Your task to perform on an android device: open app "Firefox Browser" (install if not already installed) and go to login screen Image 0: 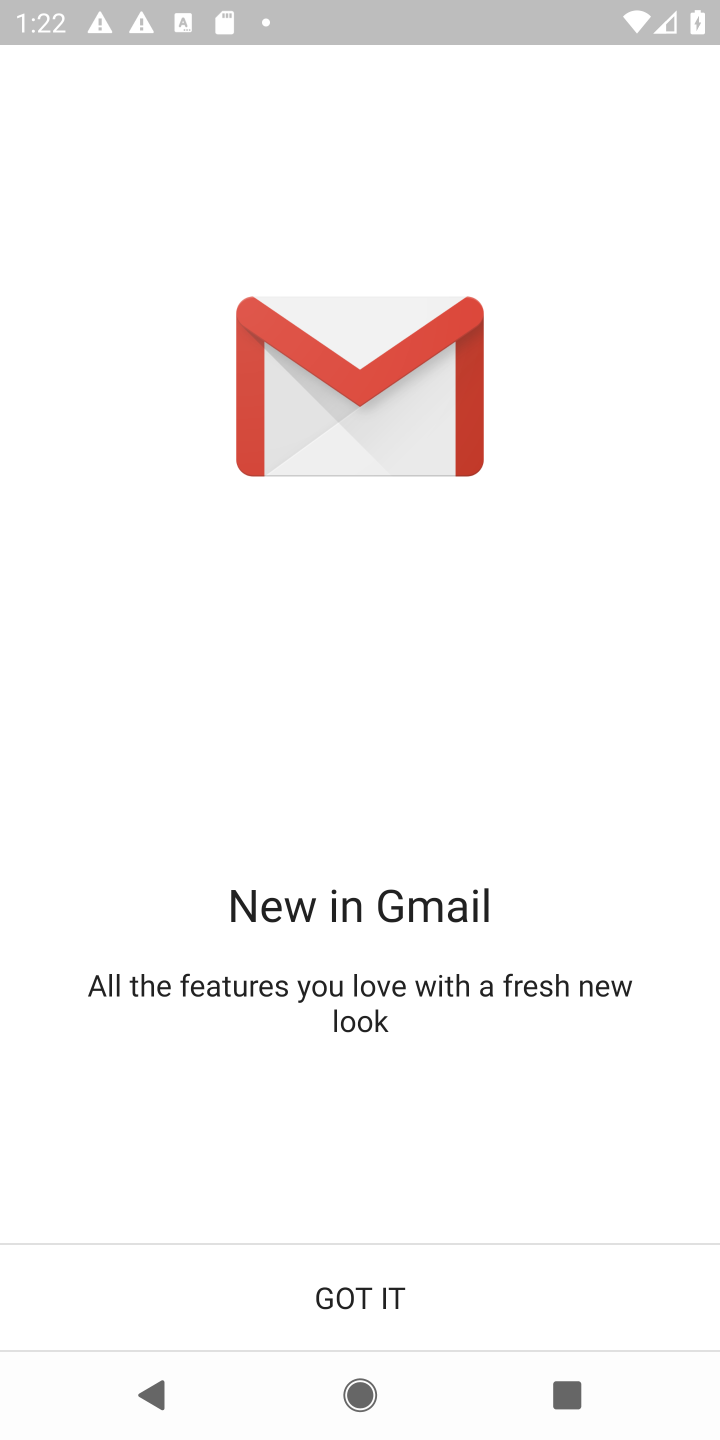
Step 0: press home button
Your task to perform on an android device: open app "Firefox Browser" (install if not already installed) and go to login screen Image 1: 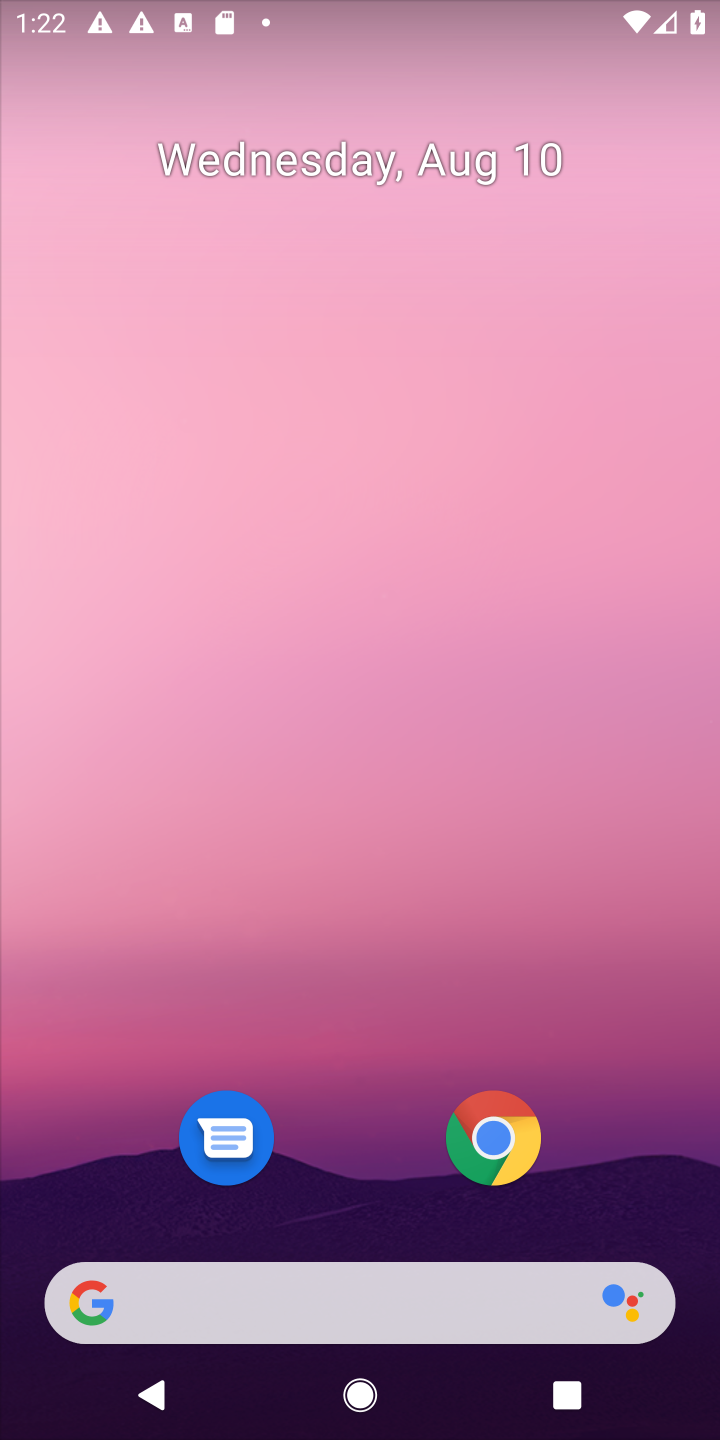
Step 1: drag from (610, 1194) to (680, 40)
Your task to perform on an android device: open app "Firefox Browser" (install if not already installed) and go to login screen Image 2: 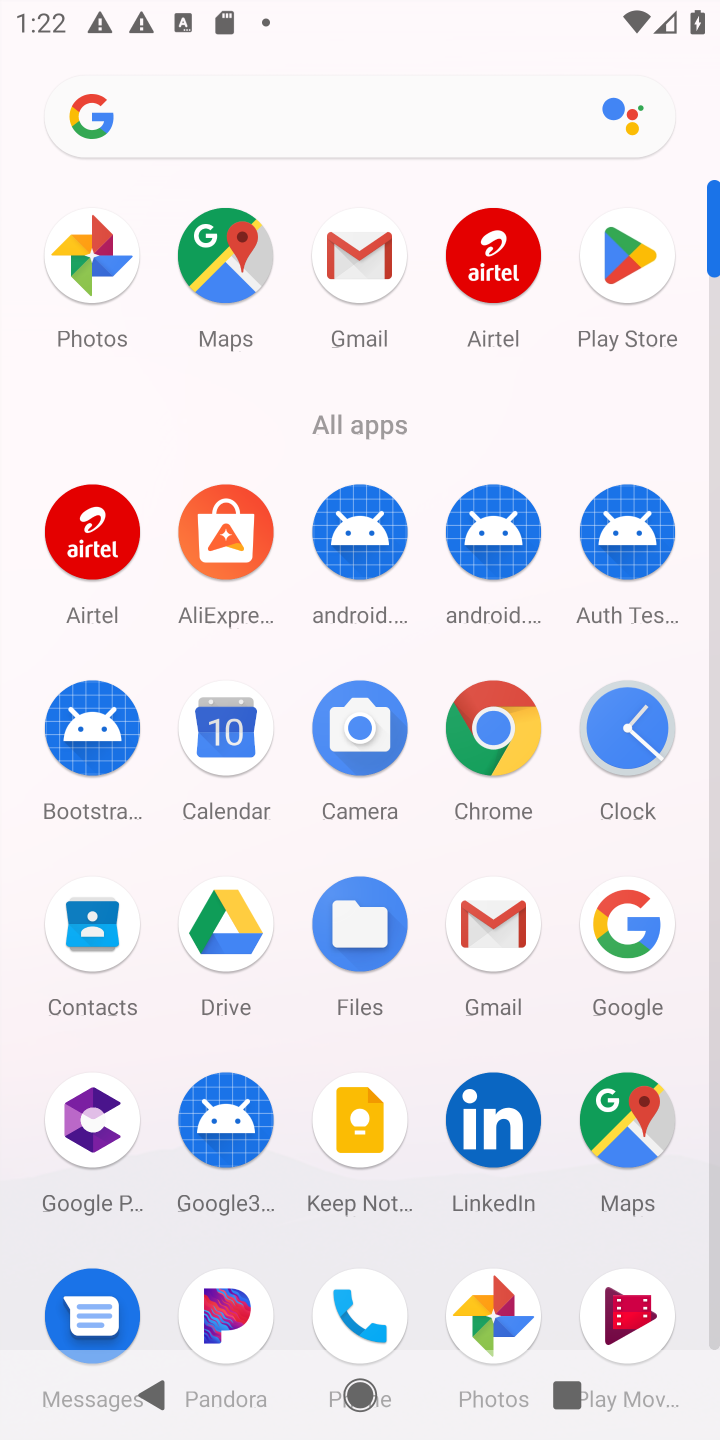
Step 2: click (623, 247)
Your task to perform on an android device: open app "Firefox Browser" (install if not already installed) and go to login screen Image 3: 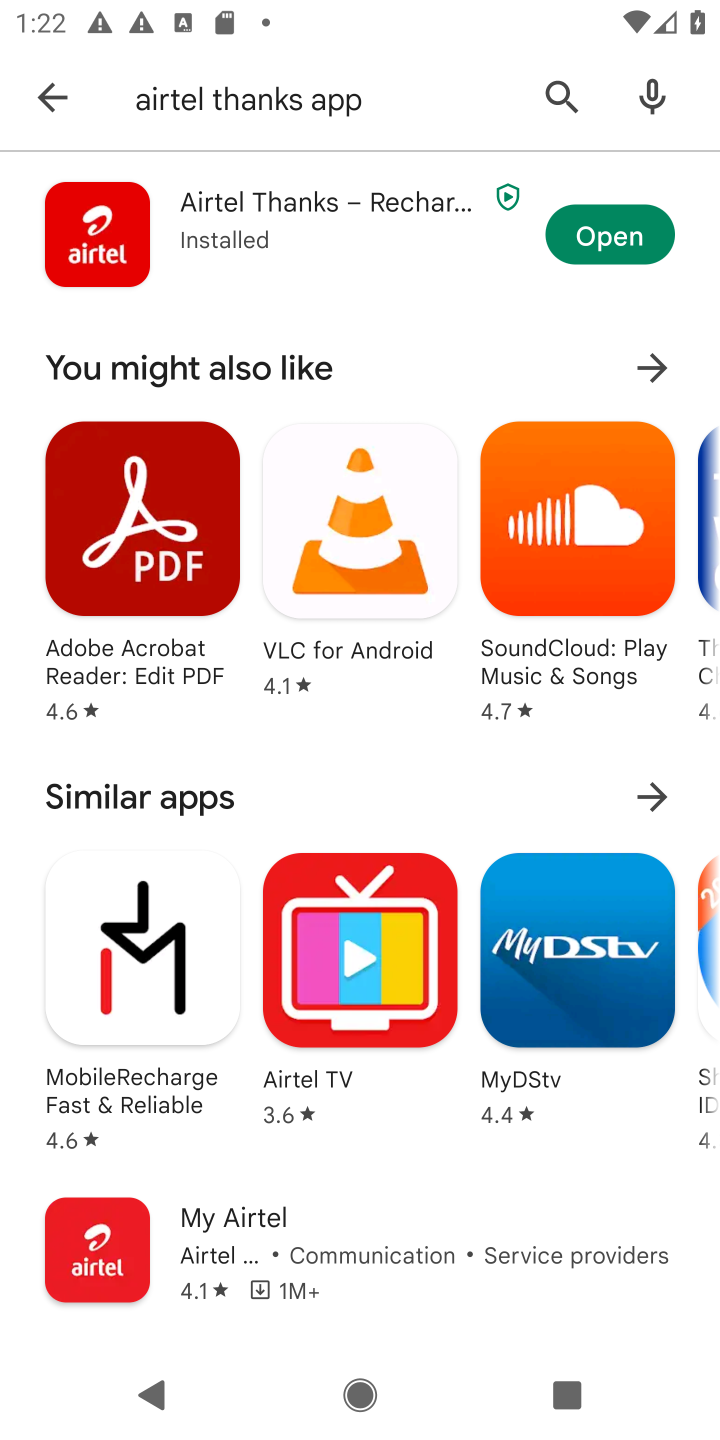
Step 3: click (559, 92)
Your task to perform on an android device: open app "Firefox Browser" (install if not already installed) and go to login screen Image 4: 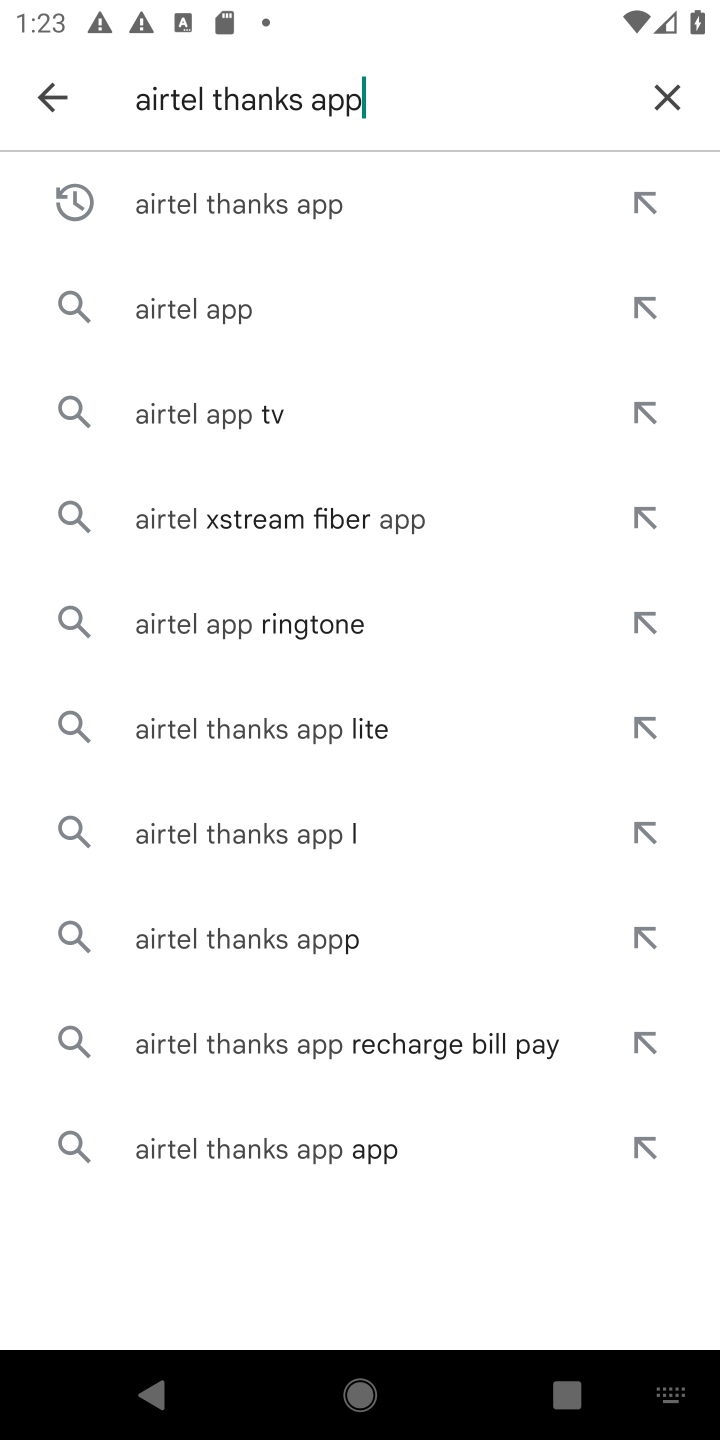
Step 4: click (670, 105)
Your task to perform on an android device: open app "Firefox Browser" (install if not already installed) and go to login screen Image 5: 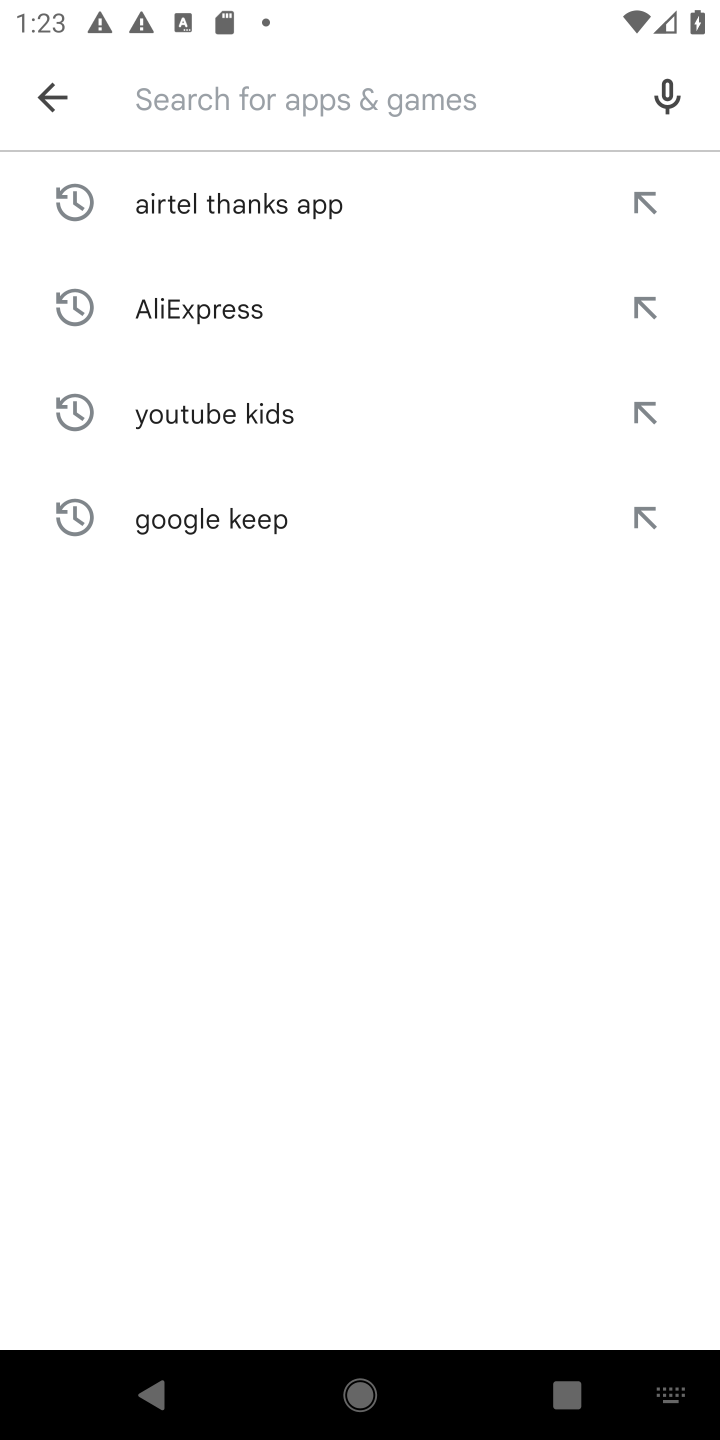
Step 5: press enter
Your task to perform on an android device: open app "Firefox Browser" (install if not already installed) and go to login screen Image 6: 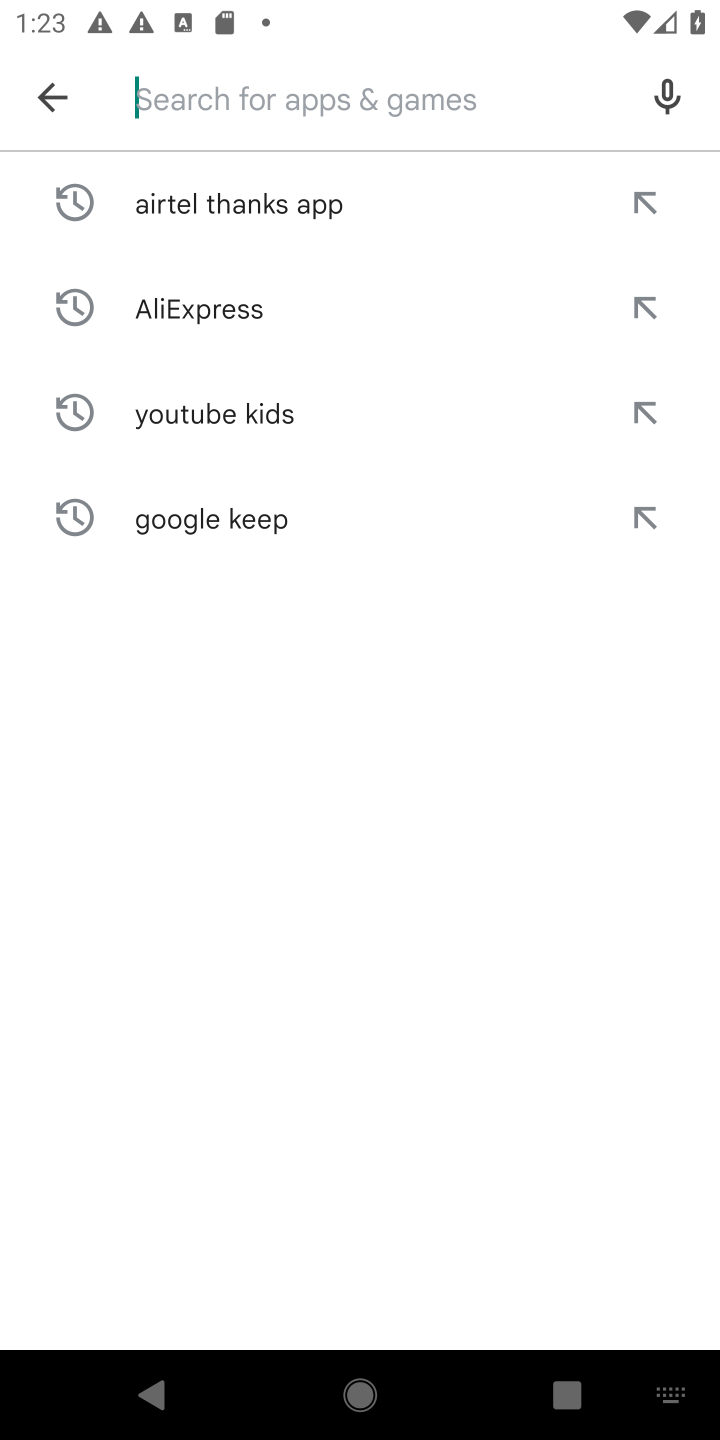
Step 6: type "Firefox Browser"
Your task to perform on an android device: open app "Firefox Browser" (install if not already installed) and go to login screen Image 7: 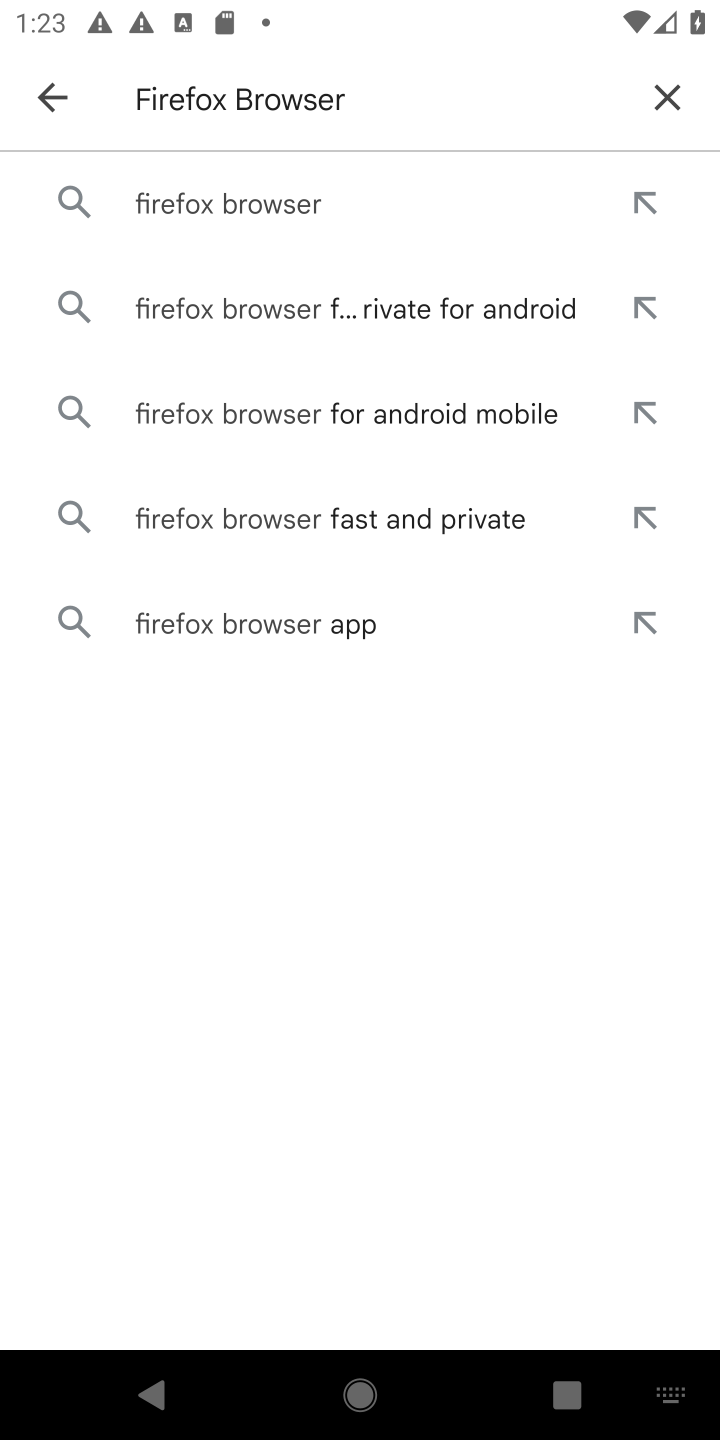
Step 7: click (316, 192)
Your task to perform on an android device: open app "Firefox Browser" (install if not already installed) and go to login screen Image 8: 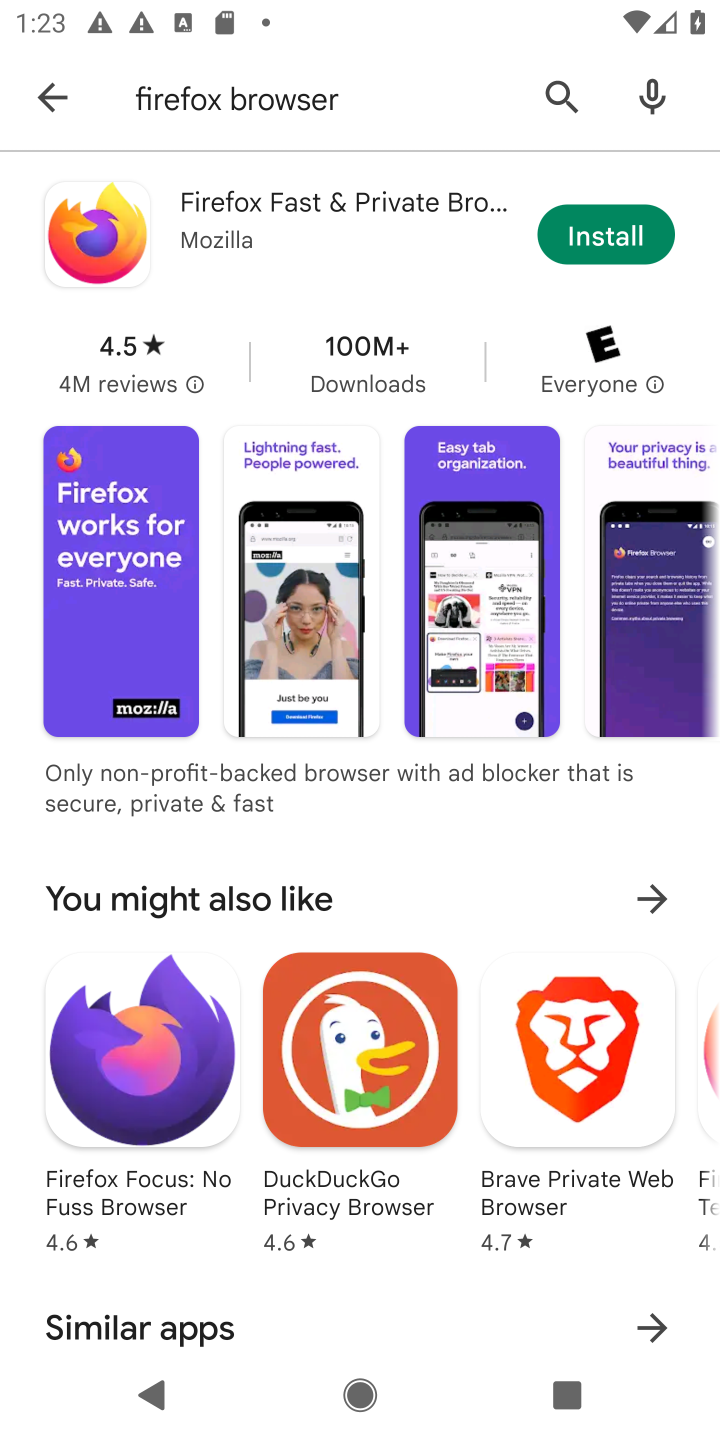
Step 8: click (620, 242)
Your task to perform on an android device: open app "Firefox Browser" (install if not already installed) and go to login screen Image 9: 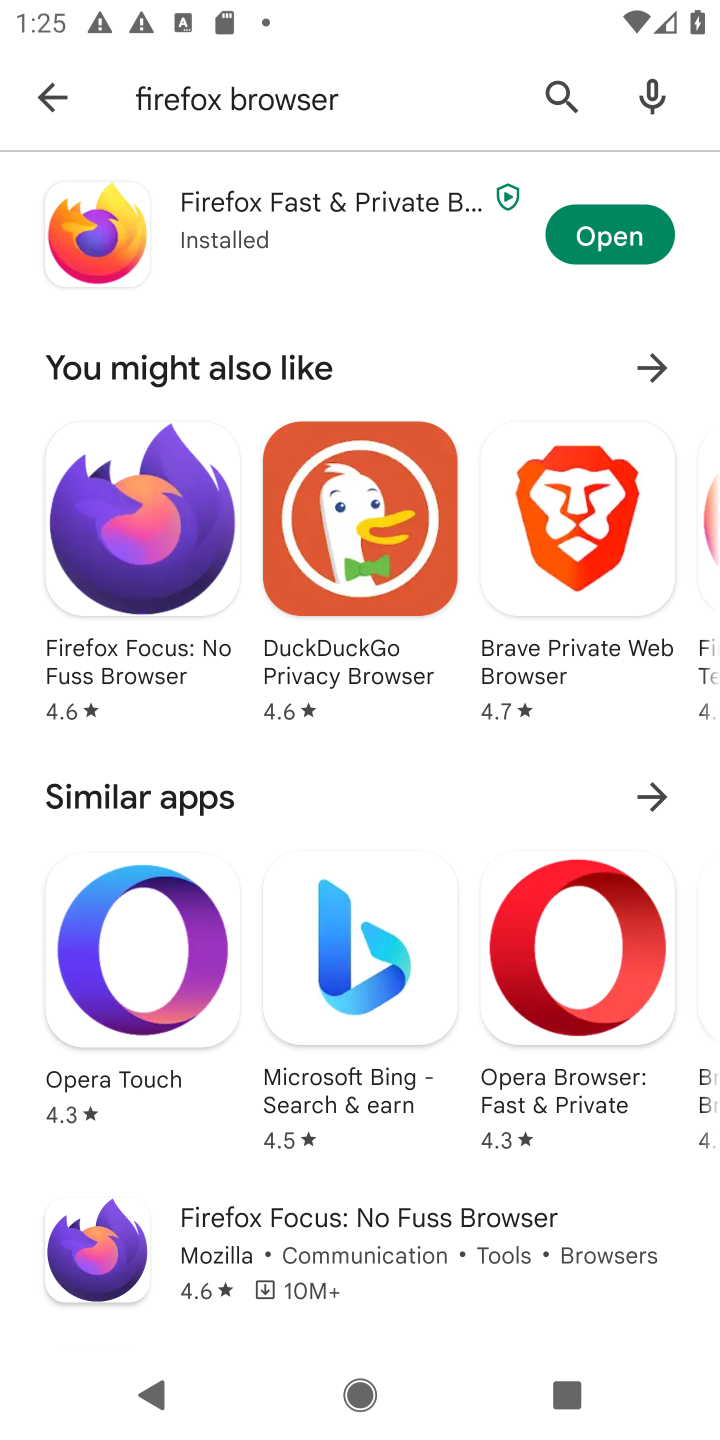
Step 9: click (616, 232)
Your task to perform on an android device: open app "Firefox Browser" (install if not already installed) and go to login screen Image 10: 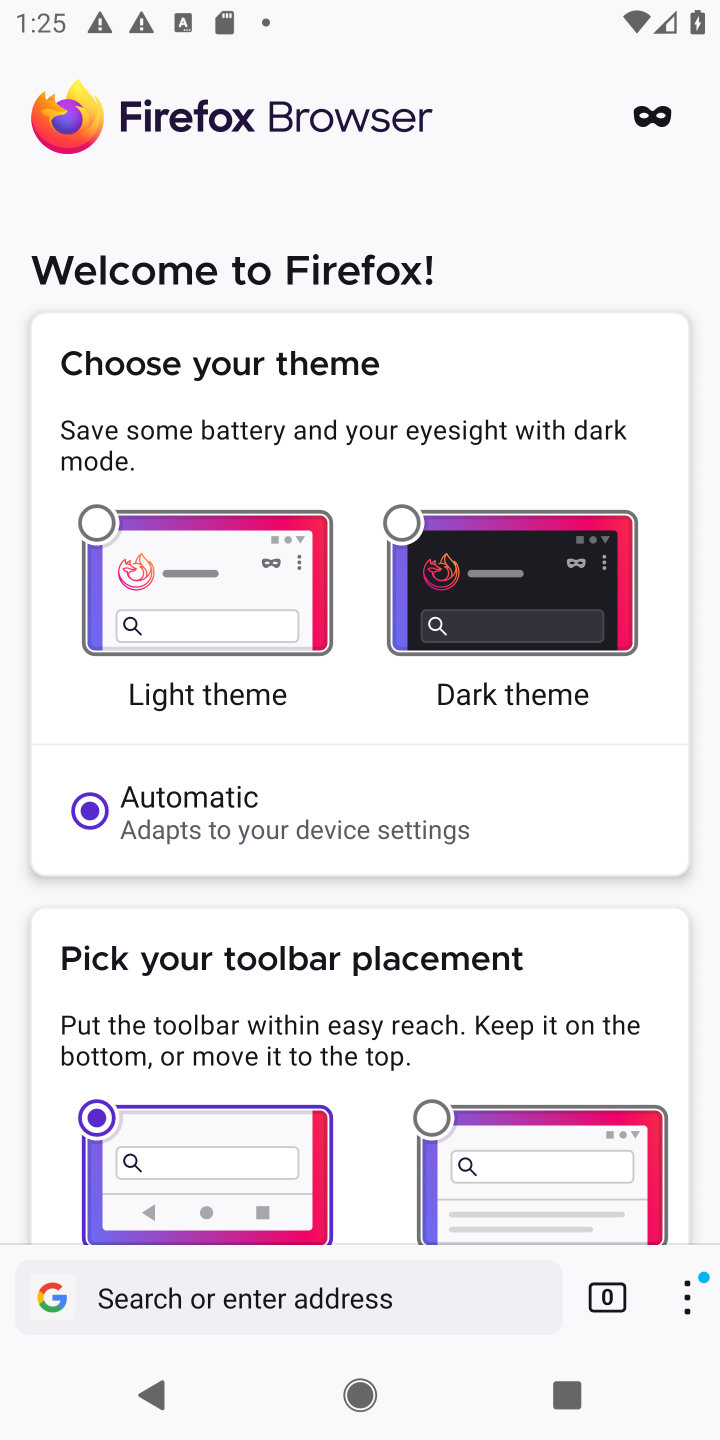
Step 10: click (217, 571)
Your task to perform on an android device: open app "Firefox Browser" (install if not already installed) and go to login screen Image 11: 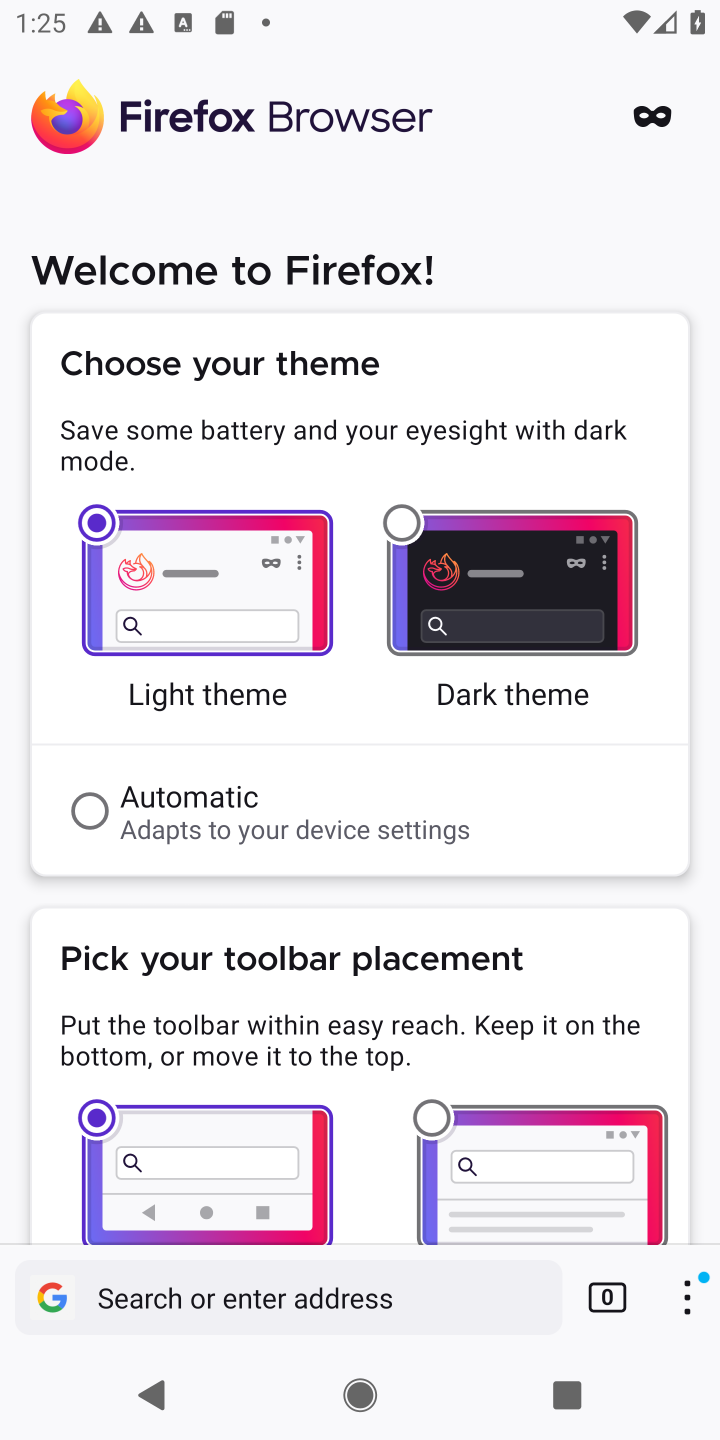
Step 11: click (690, 1301)
Your task to perform on an android device: open app "Firefox Browser" (install if not already installed) and go to login screen Image 12: 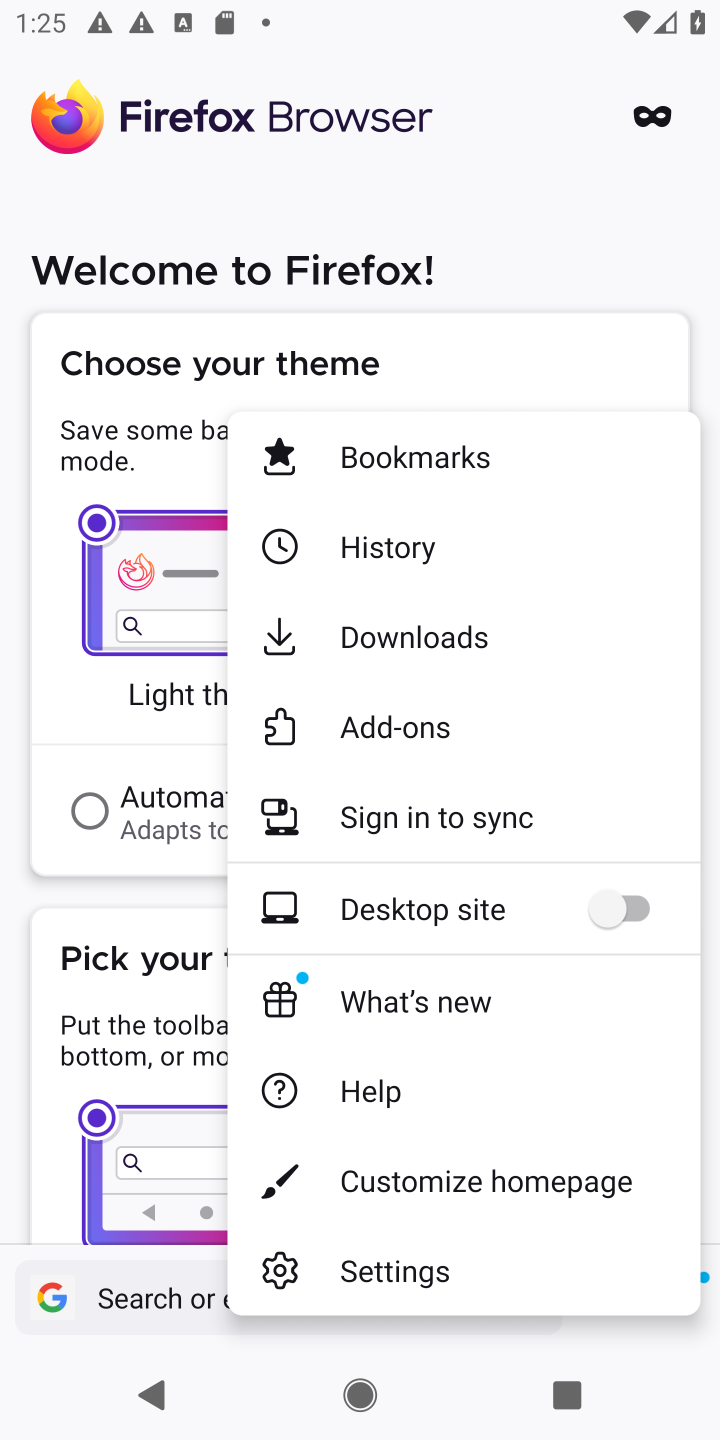
Step 12: task complete